Your task to perform on an android device: refresh tabs in the chrome app Image 0: 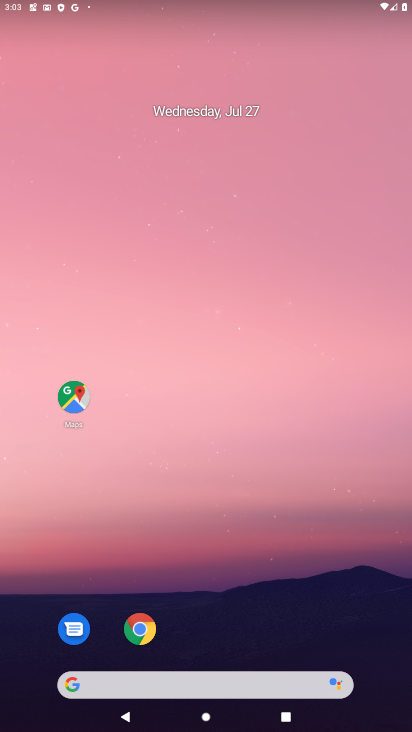
Step 0: click (129, 648)
Your task to perform on an android device: refresh tabs in the chrome app Image 1: 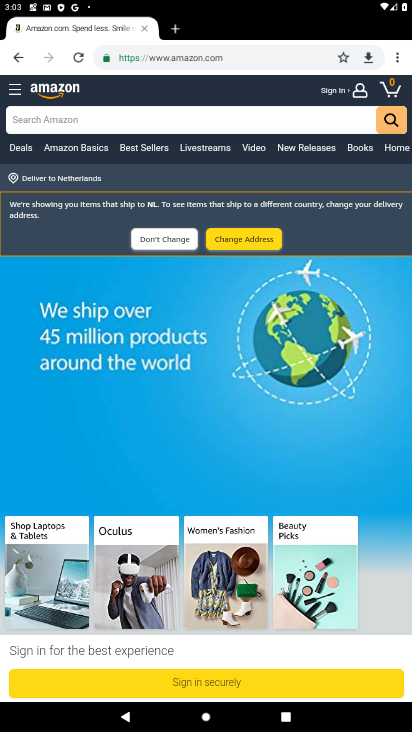
Step 1: click (168, 33)
Your task to perform on an android device: refresh tabs in the chrome app Image 2: 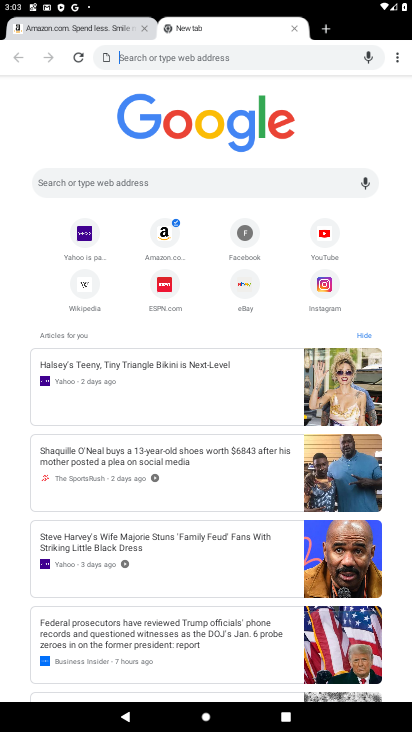
Step 2: task complete